Your task to perform on an android device: Find coffee shops on Maps Image 0: 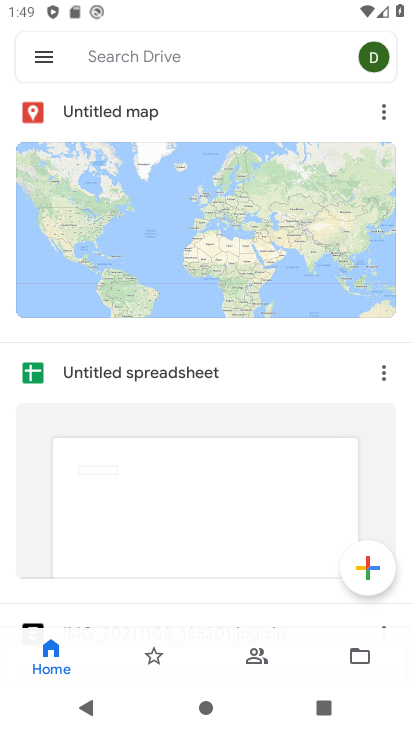
Step 0: press home button
Your task to perform on an android device: Find coffee shops on Maps Image 1: 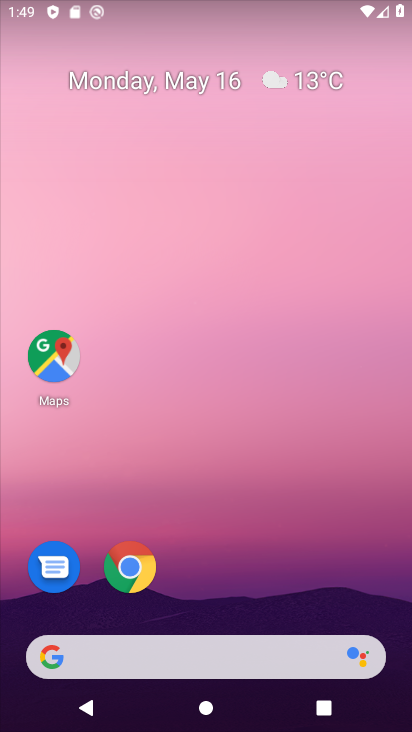
Step 1: click (50, 347)
Your task to perform on an android device: Find coffee shops on Maps Image 2: 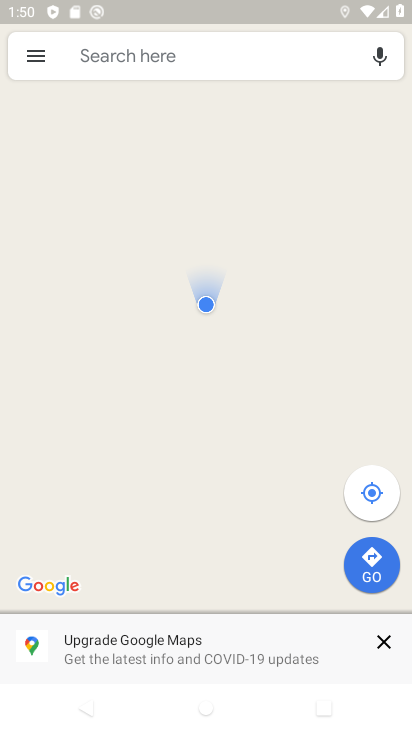
Step 2: click (140, 57)
Your task to perform on an android device: Find coffee shops on Maps Image 3: 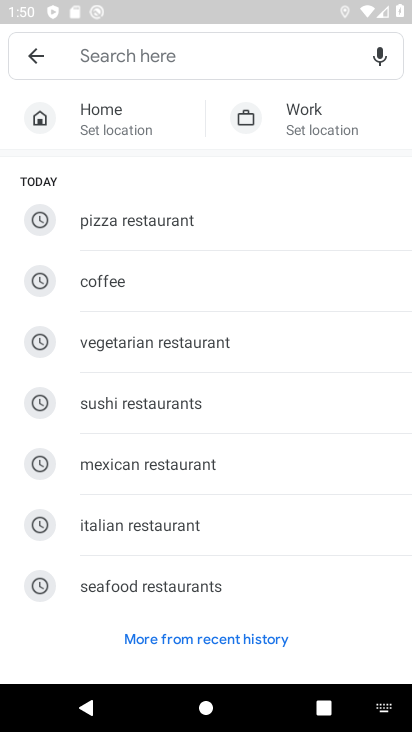
Step 3: type "coffee shops"
Your task to perform on an android device: Find coffee shops on Maps Image 4: 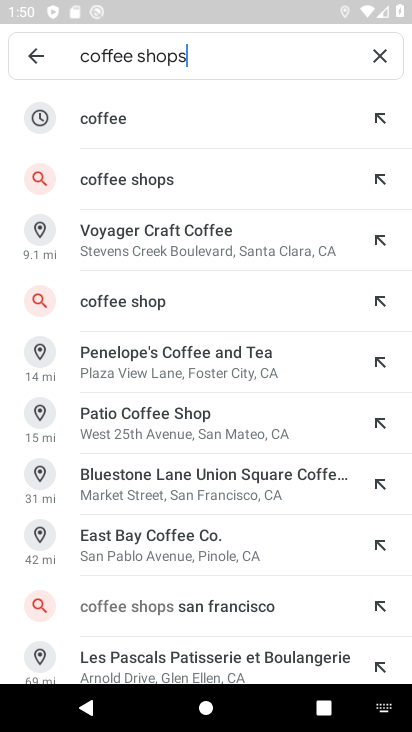
Step 4: click (151, 175)
Your task to perform on an android device: Find coffee shops on Maps Image 5: 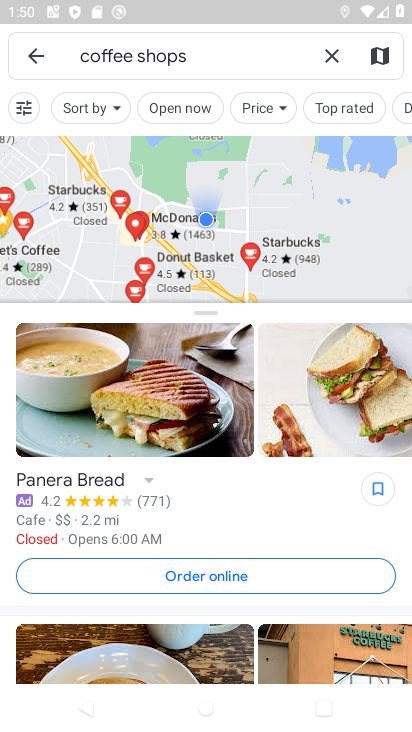
Step 5: task complete